Your task to perform on an android device: Open CNN.com Image 0: 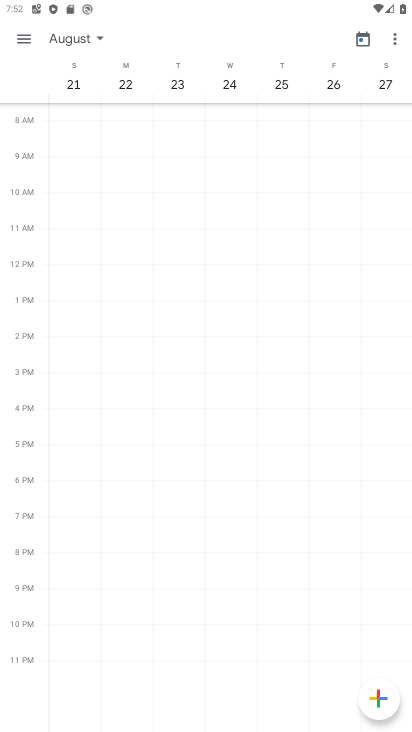
Step 0: press home button
Your task to perform on an android device: Open CNN.com Image 1: 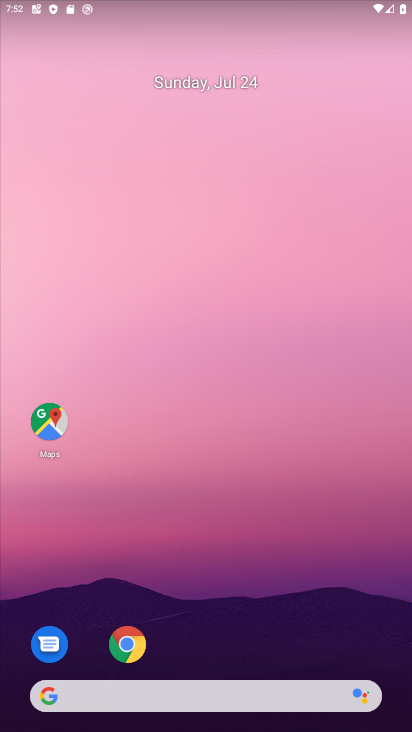
Step 1: click (143, 662)
Your task to perform on an android device: Open CNN.com Image 2: 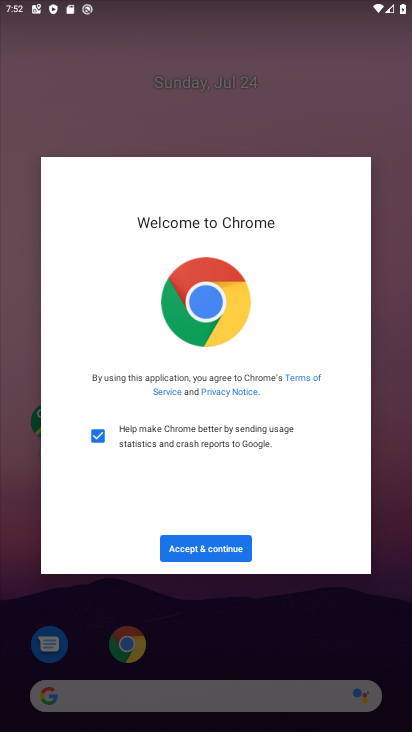
Step 2: click (210, 545)
Your task to perform on an android device: Open CNN.com Image 3: 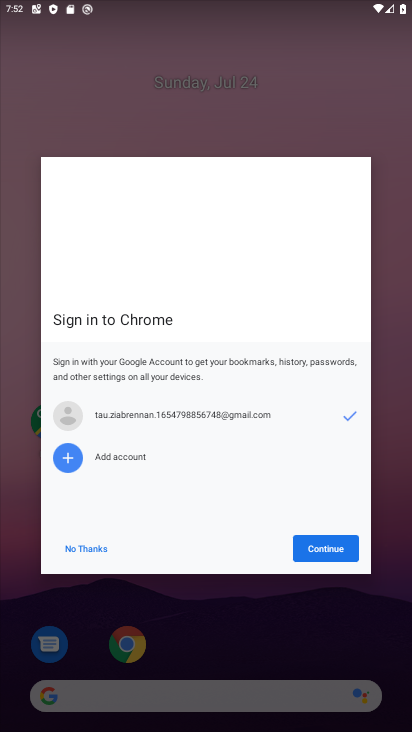
Step 3: click (310, 553)
Your task to perform on an android device: Open CNN.com Image 4: 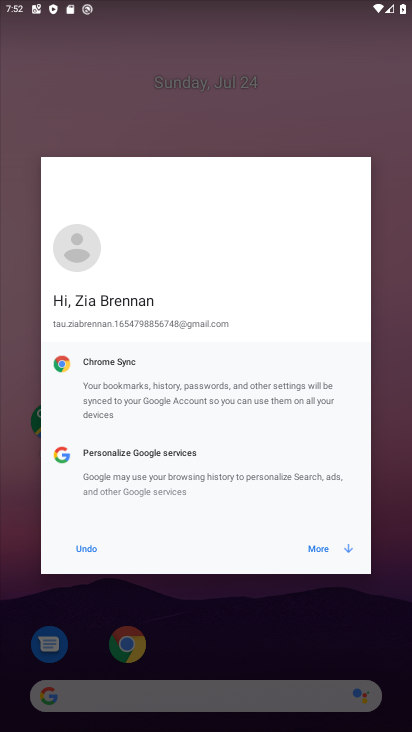
Step 4: click (310, 553)
Your task to perform on an android device: Open CNN.com Image 5: 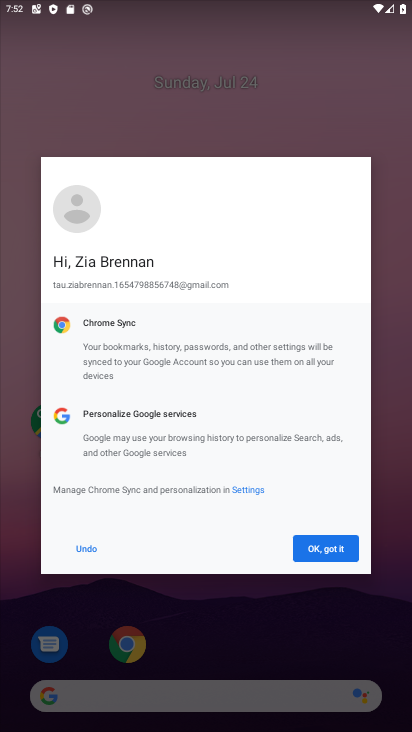
Step 5: click (310, 553)
Your task to perform on an android device: Open CNN.com Image 6: 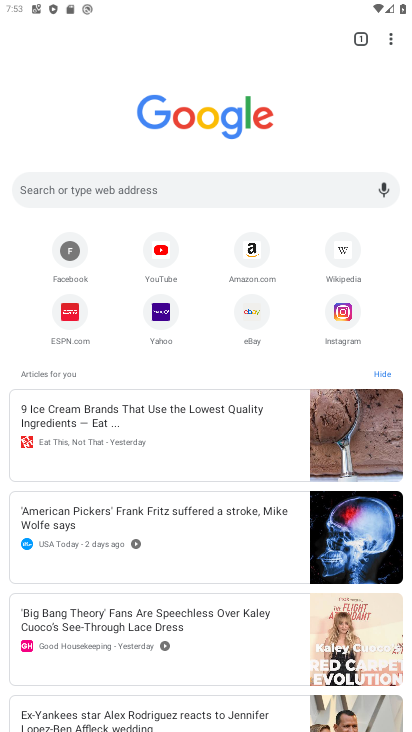
Step 6: click (240, 189)
Your task to perform on an android device: Open CNN.com Image 7: 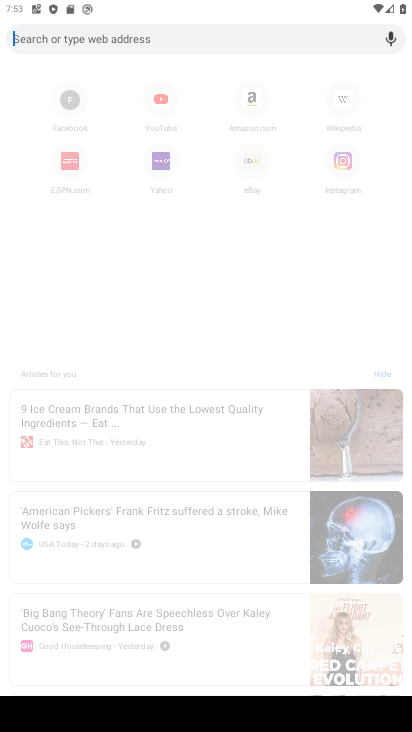
Step 7: type "cnn.com"
Your task to perform on an android device: Open CNN.com Image 8: 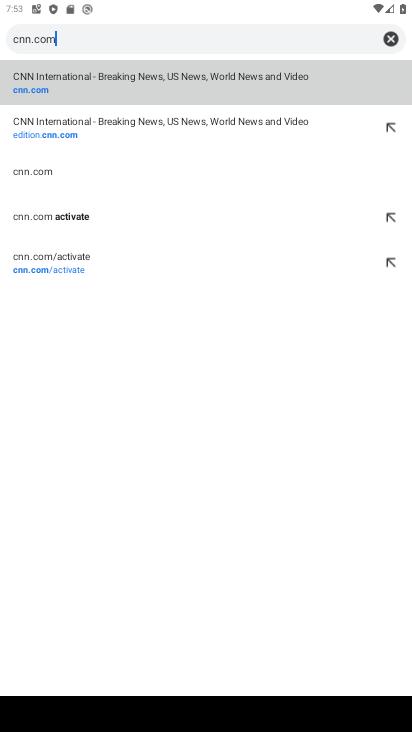
Step 8: click (98, 84)
Your task to perform on an android device: Open CNN.com Image 9: 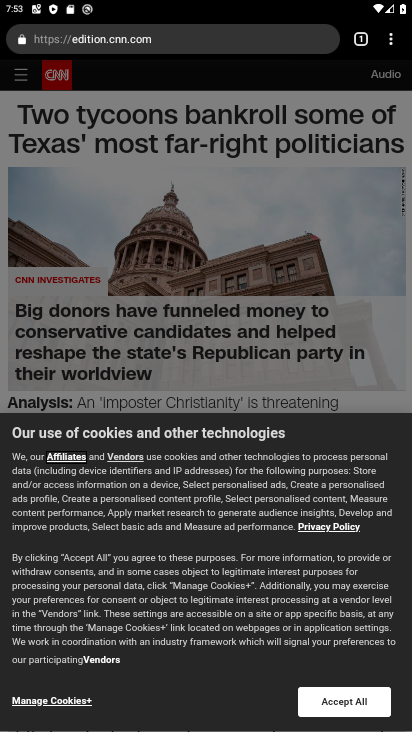
Step 9: task complete